Your task to perform on an android device: Search for vegetarian restaurants on Maps Image 0: 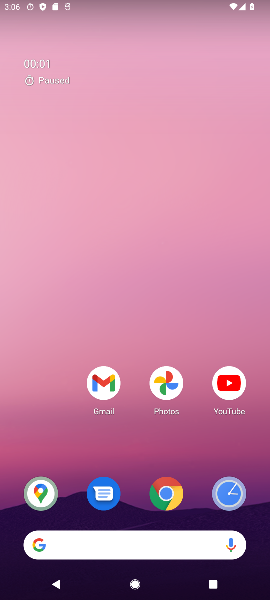
Step 0: click (40, 503)
Your task to perform on an android device: Search for vegetarian restaurants on Maps Image 1: 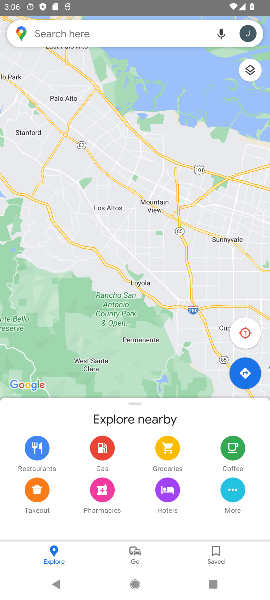
Step 1: click (79, 34)
Your task to perform on an android device: Search for vegetarian restaurants on Maps Image 2: 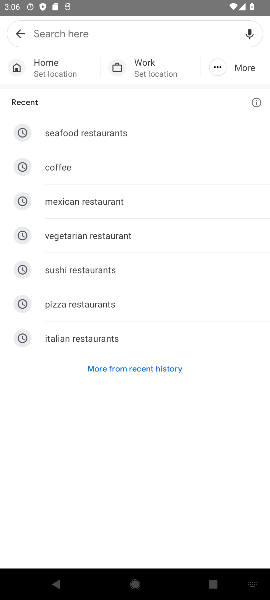
Step 2: click (81, 243)
Your task to perform on an android device: Search for vegetarian restaurants on Maps Image 3: 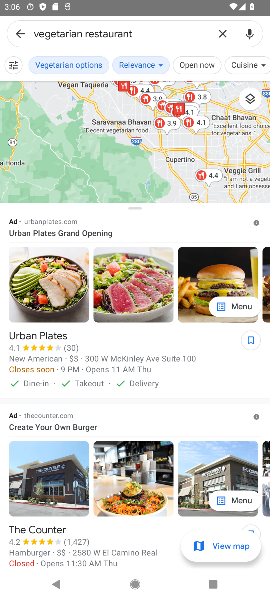
Step 3: task complete